Your task to perform on an android device: turn pop-ups on in chrome Image 0: 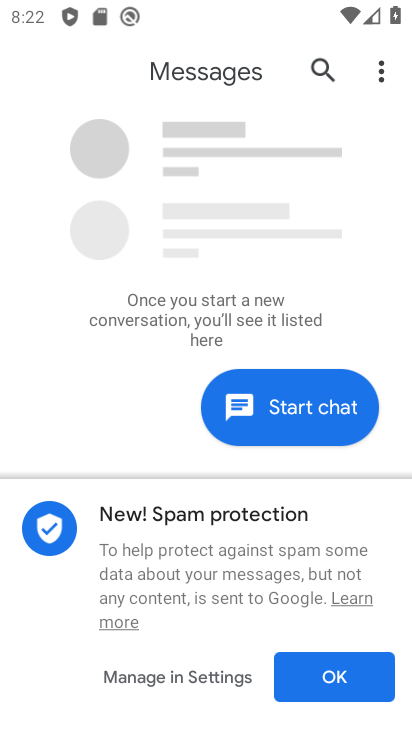
Step 0: press home button
Your task to perform on an android device: turn pop-ups on in chrome Image 1: 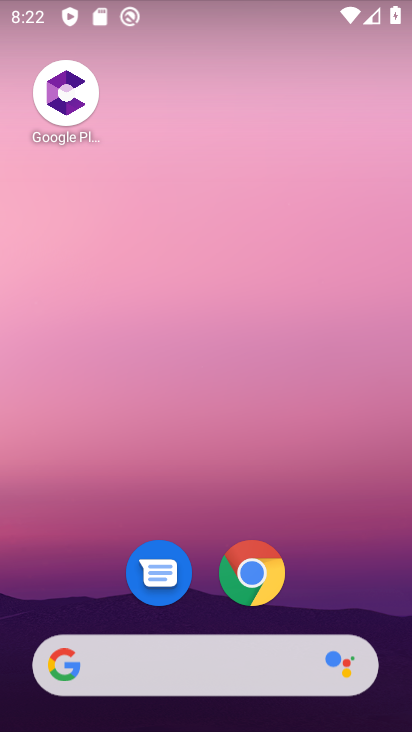
Step 1: click (241, 562)
Your task to perform on an android device: turn pop-ups on in chrome Image 2: 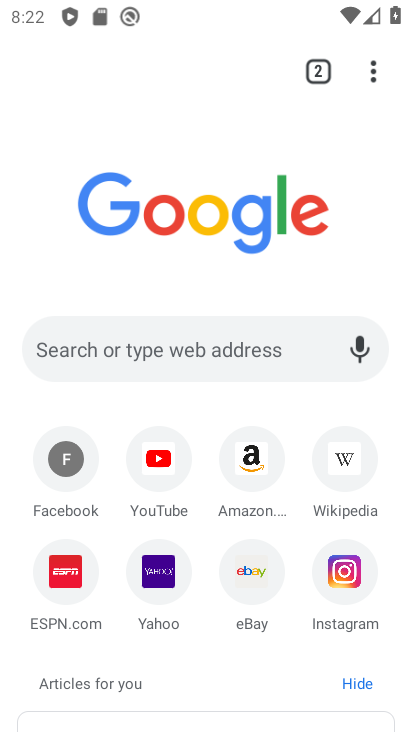
Step 2: drag from (379, 64) to (126, 609)
Your task to perform on an android device: turn pop-ups on in chrome Image 3: 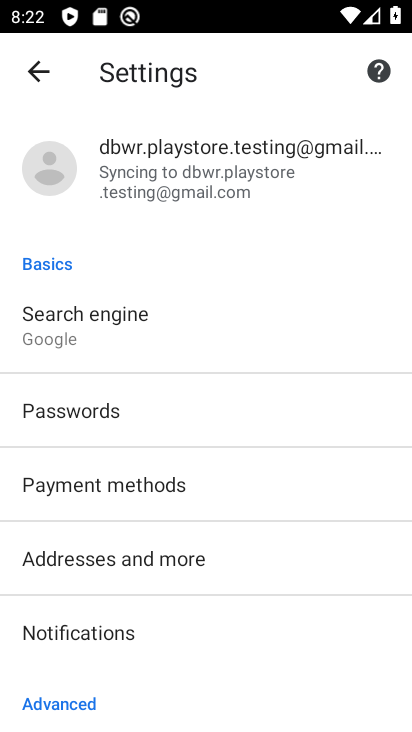
Step 3: drag from (225, 669) to (369, 271)
Your task to perform on an android device: turn pop-ups on in chrome Image 4: 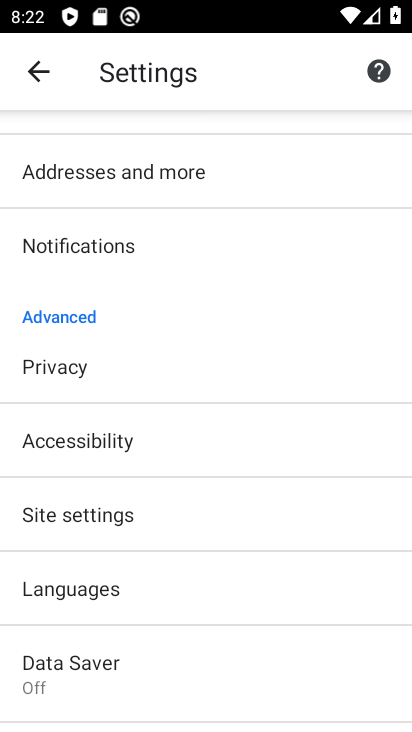
Step 4: click (109, 512)
Your task to perform on an android device: turn pop-ups on in chrome Image 5: 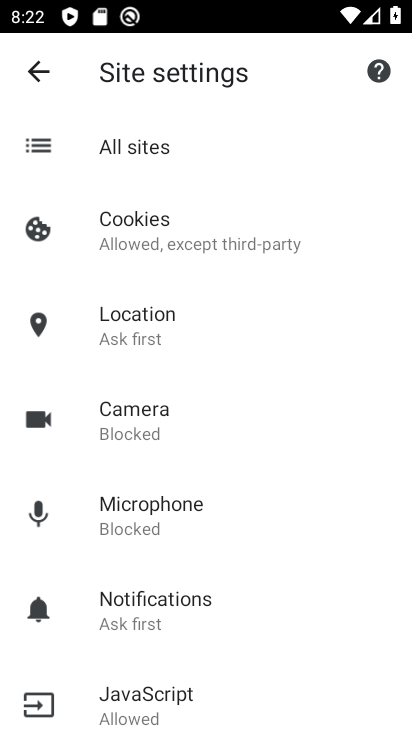
Step 5: drag from (228, 607) to (388, 246)
Your task to perform on an android device: turn pop-ups on in chrome Image 6: 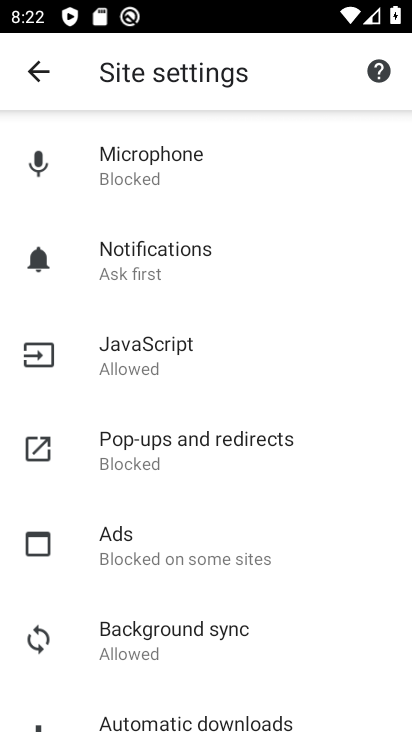
Step 6: click (233, 445)
Your task to perform on an android device: turn pop-ups on in chrome Image 7: 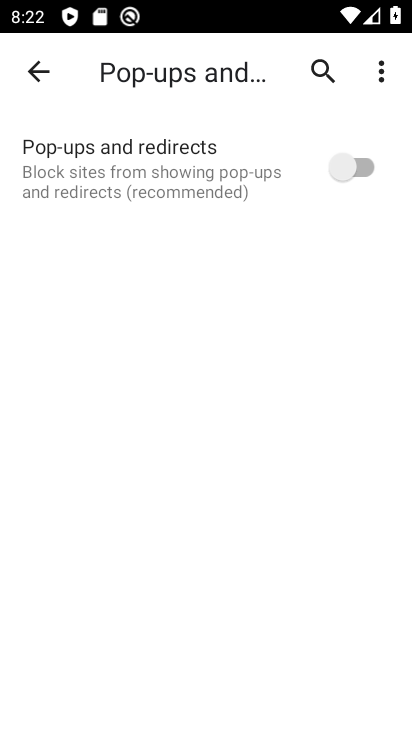
Step 7: click (355, 166)
Your task to perform on an android device: turn pop-ups on in chrome Image 8: 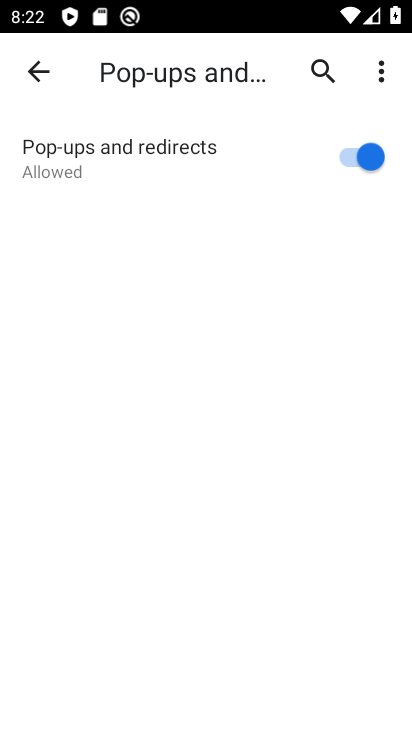
Step 8: task complete